Your task to perform on an android device: Is it going to rain tomorrow? Image 0: 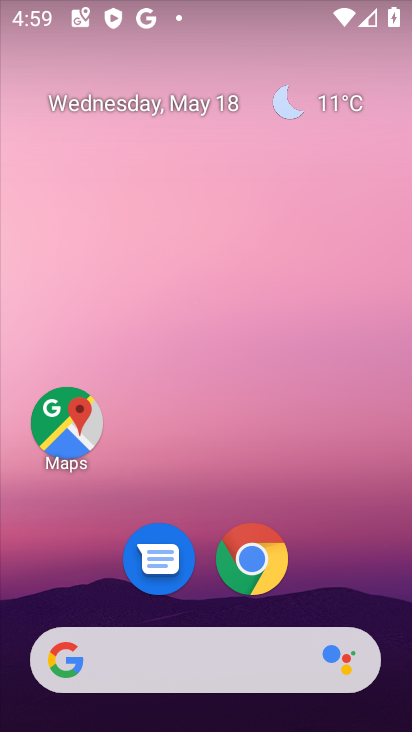
Step 0: click (295, 112)
Your task to perform on an android device: Is it going to rain tomorrow? Image 1: 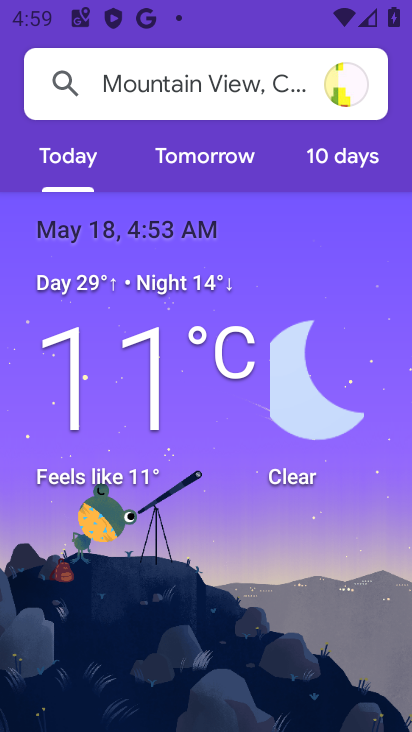
Step 1: click (191, 163)
Your task to perform on an android device: Is it going to rain tomorrow? Image 2: 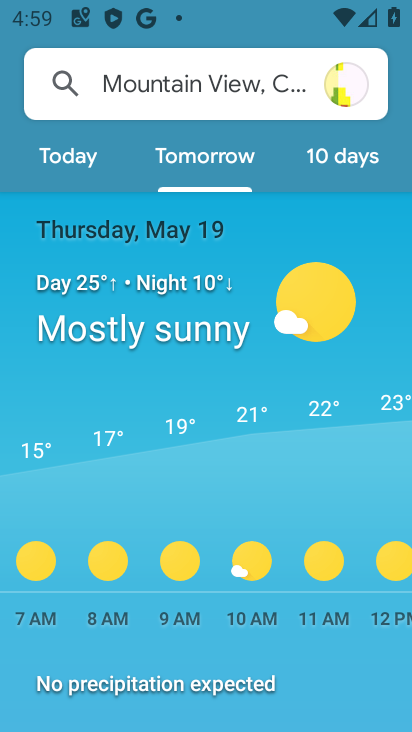
Step 2: task complete